Your task to perform on an android device: toggle wifi Image 0: 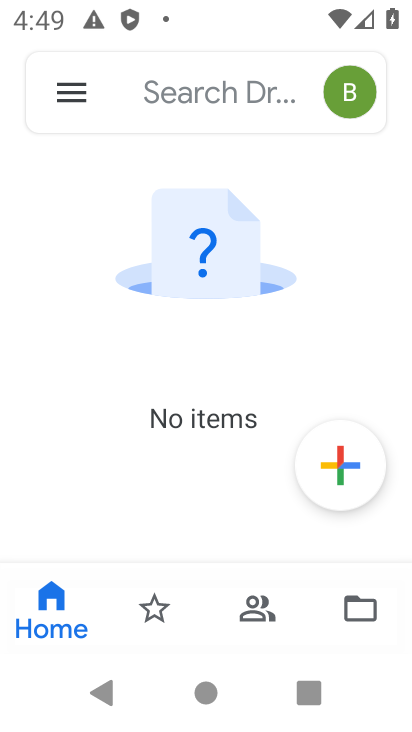
Step 0: press home button
Your task to perform on an android device: toggle wifi Image 1: 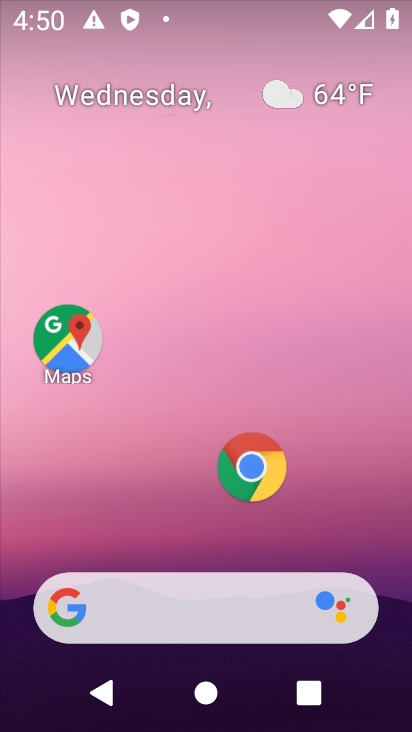
Step 1: task complete